Your task to perform on an android device: all mails in gmail Image 0: 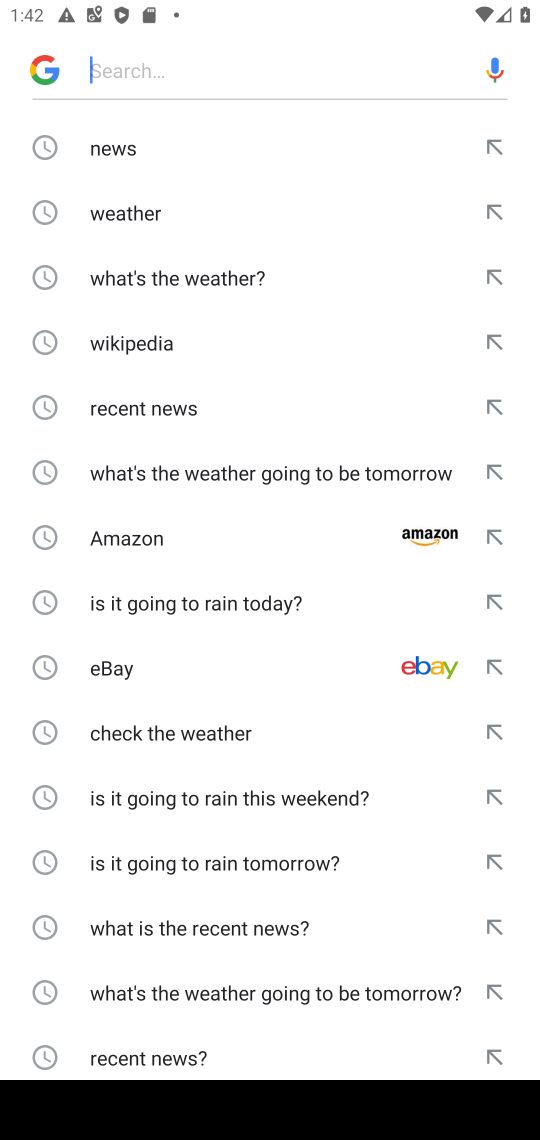
Step 0: press home button
Your task to perform on an android device: all mails in gmail Image 1: 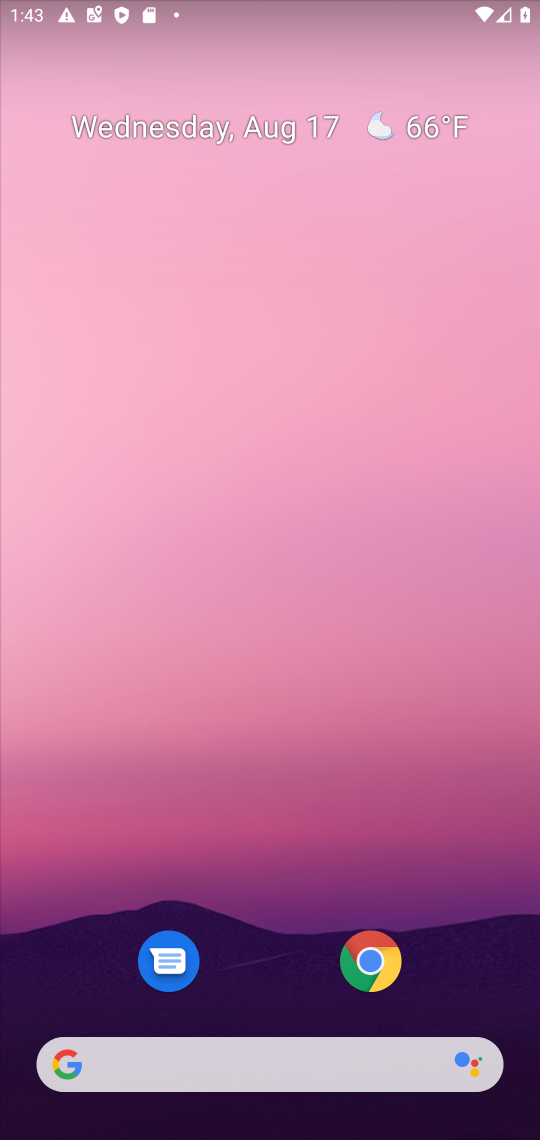
Step 1: drag from (338, 881) to (365, 107)
Your task to perform on an android device: all mails in gmail Image 2: 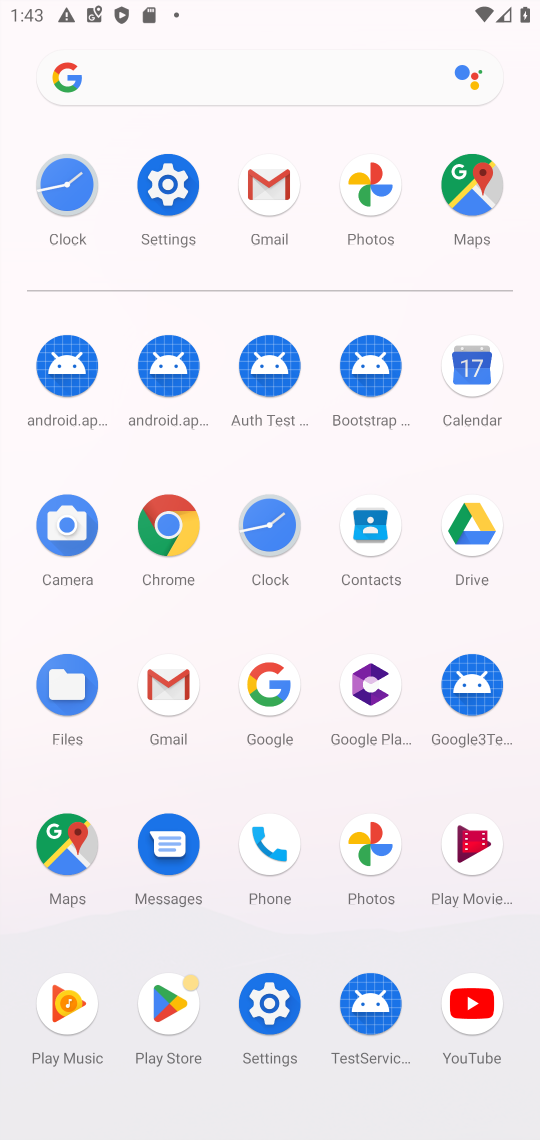
Step 2: click (162, 696)
Your task to perform on an android device: all mails in gmail Image 3: 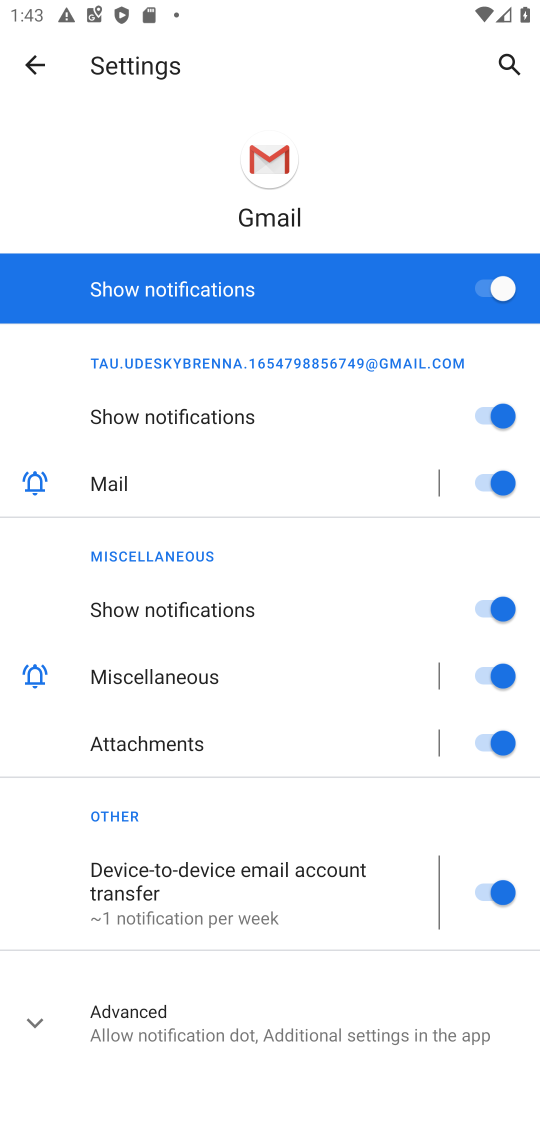
Step 3: click (46, 81)
Your task to perform on an android device: all mails in gmail Image 4: 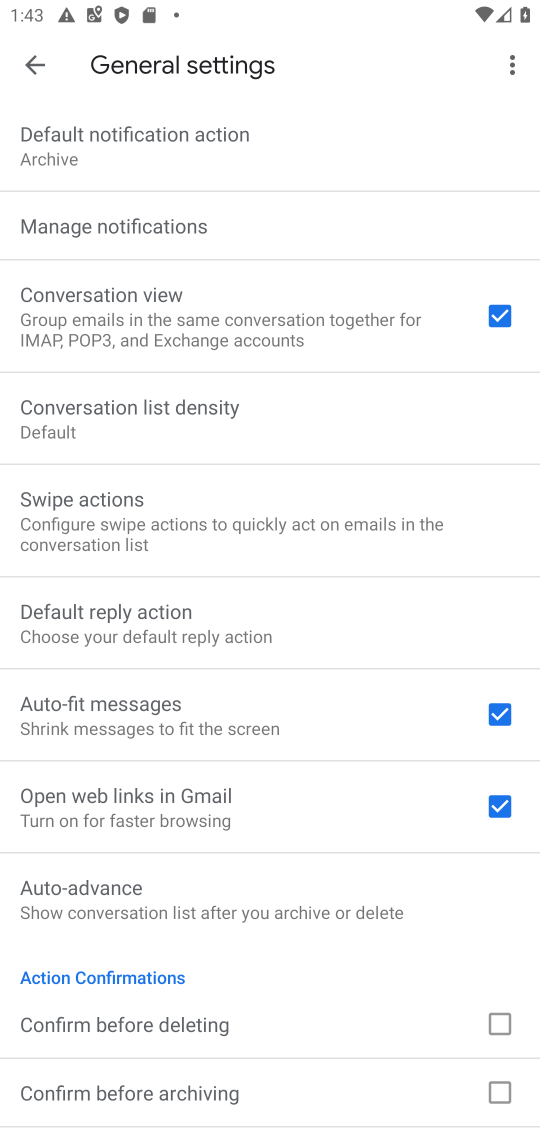
Step 4: click (32, 77)
Your task to perform on an android device: all mails in gmail Image 5: 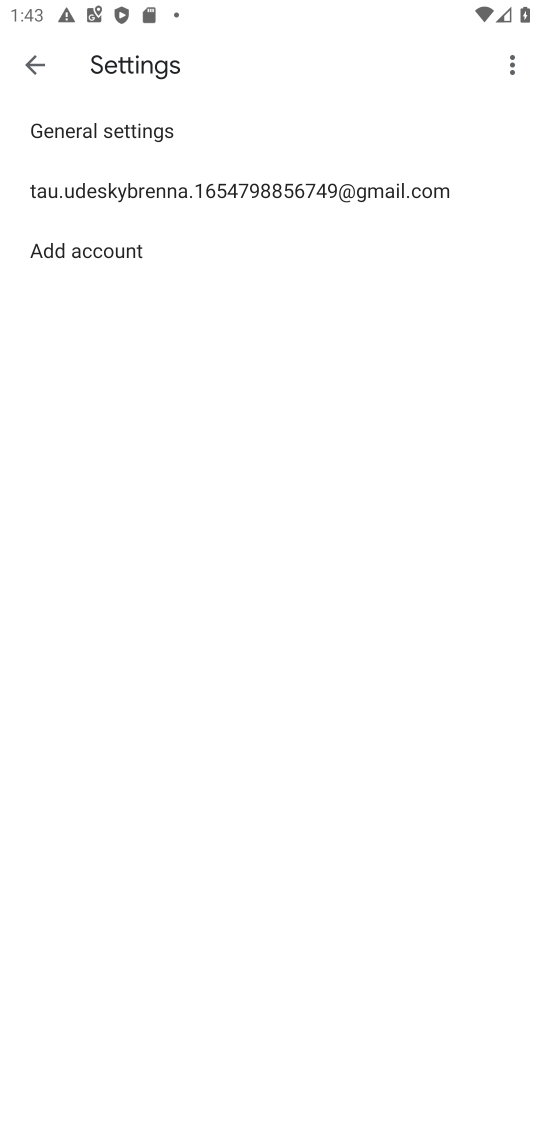
Step 5: click (29, 58)
Your task to perform on an android device: all mails in gmail Image 6: 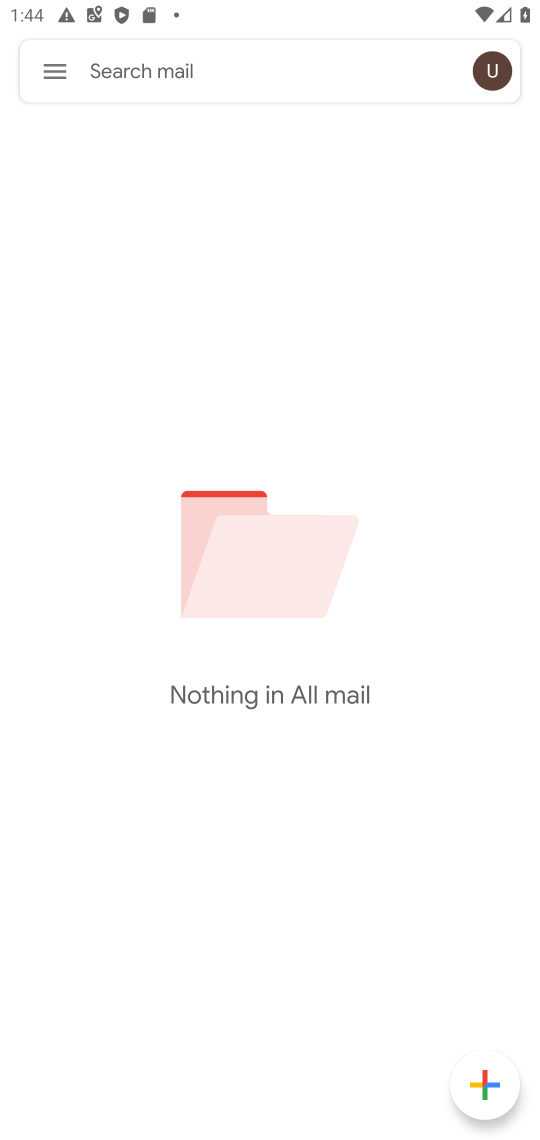
Step 6: task complete